Your task to perform on an android device: open app "WhatsApp Messenger" (install if not already installed) and go to login screen Image 0: 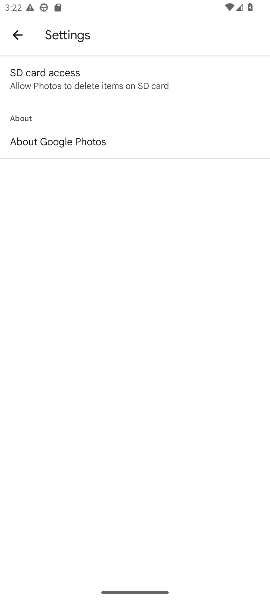
Step 0: press home button
Your task to perform on an android device: open app "WhatsApp Messenger" (install if not already installed) and go to login screen Image 1: 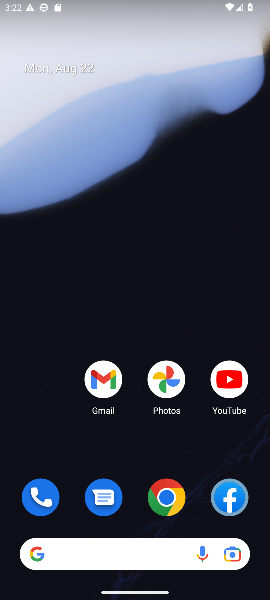
Step 1: drag from (127, 444) to (166, 63)
Your task to perform on an android device: open app "WhatsApp Messenger" (install if not already installed) and go to login screen Image 2: 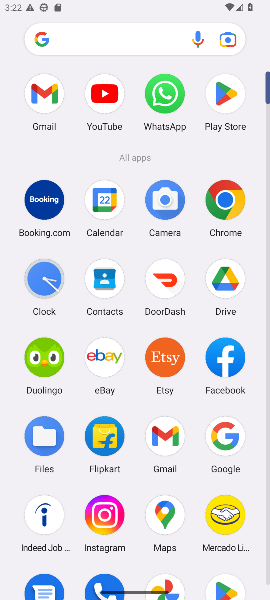
Step 2: click (228, 96)
Your task to perform on an android device: open app "WhatsApp Messenger" (install if not already installed) and go to login screen Image 3: 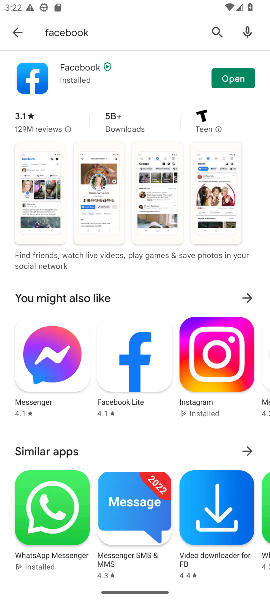
Step 3: click (208, 32)
Your task to perform on an android device: open app "WhatsApp Messenger" (install if not already installed) and go to login screen Image 4: 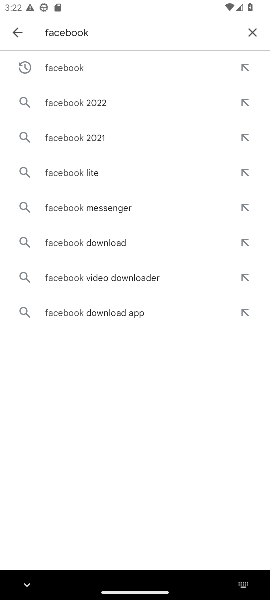
Step 4: click (247, 26)
Your task to perform on an android device: open app "WhatsApp Messenger" (install if not already installed) and go to login screen Image 5: 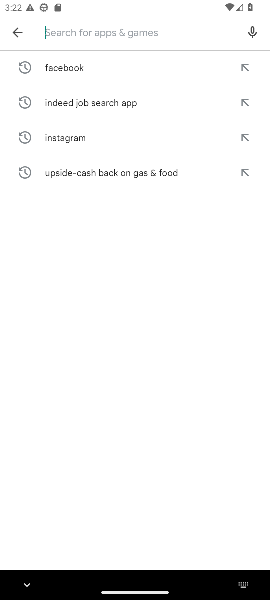
Step 5: type "WhatsApp Messenger"
Your task to perform on an android device: open app "WhatsApp Messenger" (install if not already installed) and go to login screen Image 6: 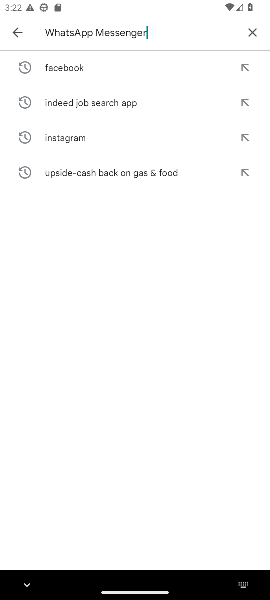
Step 6: type ""
Your task to perform on an android device: open app "WhatsApp Messenger" (install if not already installed) and go to login screen Image 7: 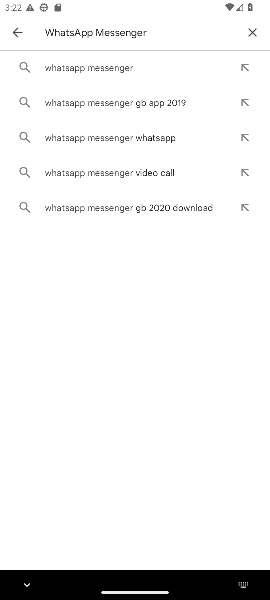
Step 7: click (120, 66)
Your task to perform on an android device: open app "WhatsApp Messenger" (install if not already installed) and go to login screen Image 8: 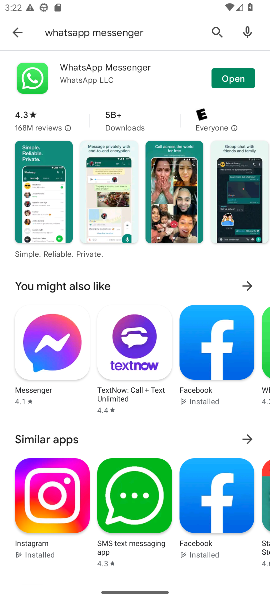
Step 8: click (226, 76)
Your task to perform on an android device: open app "WhatsApp Messenger" (install if not already installed) and go to login screen Image 9: 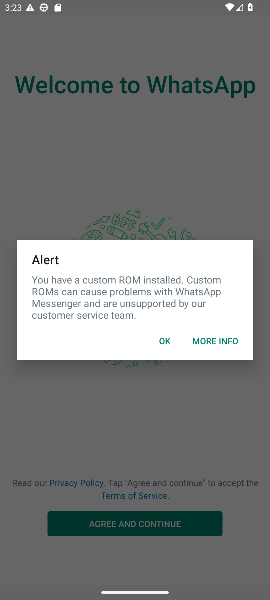
Step 9: click (162, 335)
Your task to perform on an android device: open app "WhatsApp Messenger" (install if not already installed) and go to login screen Image 10: 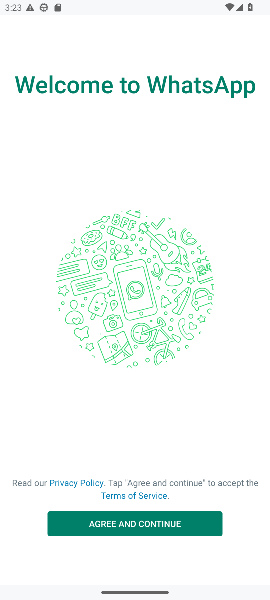
Step 10: task complete